Your task to perform on an android device: Open ESPN.com Image 0: 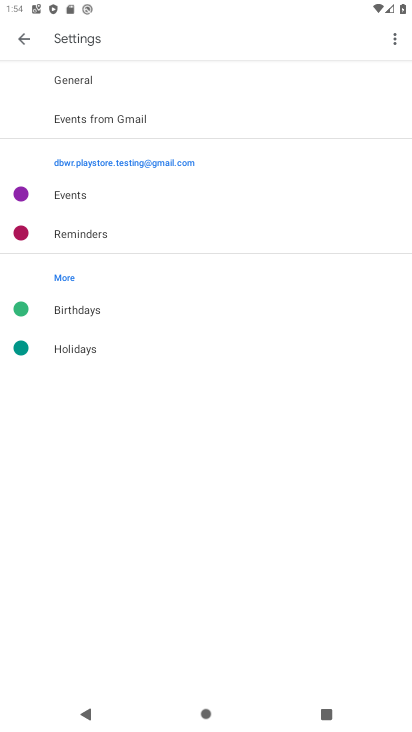
Step 0: press back button
Your task to perform on an android device: Open ESPN.com Image 1: 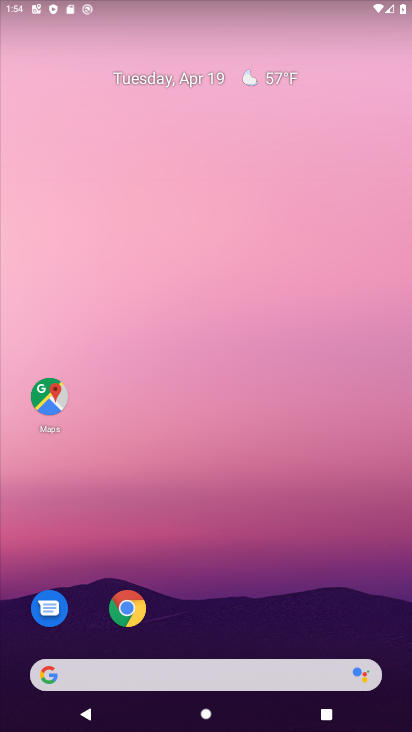
Step 1: drag from (245, 623) to (303, 236)
Your task to perform on an android device: Open ESPN.com Image 2: 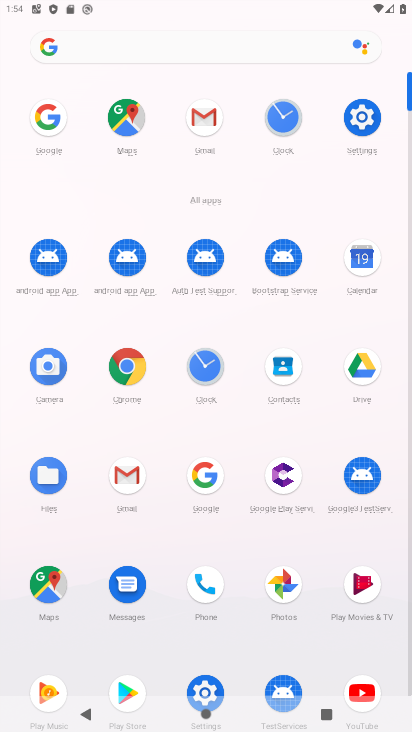
Step 2: click (206, 476)
Your task to perform on an android device: Open ESPN.com Image 3: 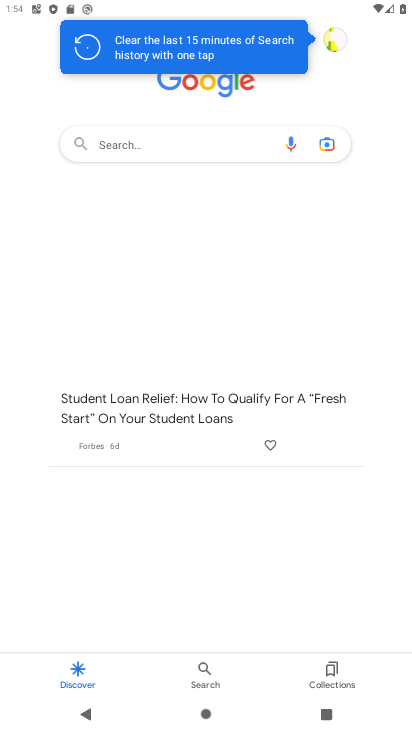
Step 3: click (122, 146)
Your task to perform on an android device: Open ESPN.com Image 4: 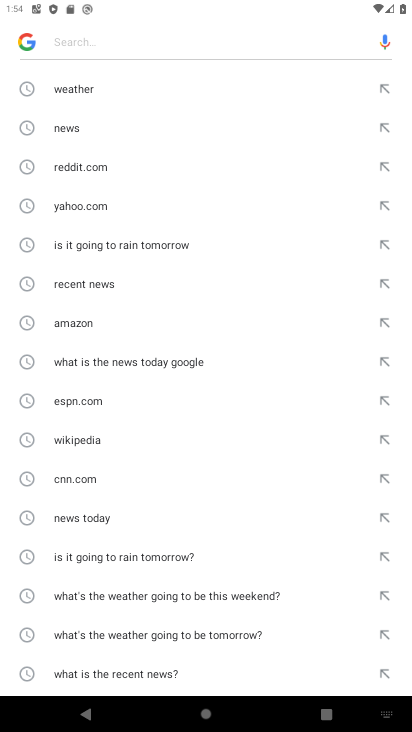
Step 4: type "ESPN.com"
Your task to perform on an android device: Open ESPN.com Image 5: 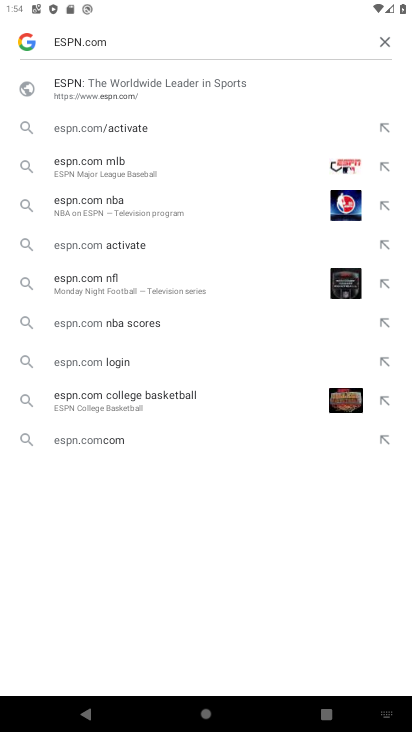
Step 5: click (88, 85)
Your task to perform on an android device: Open ESPN.com Image 6: 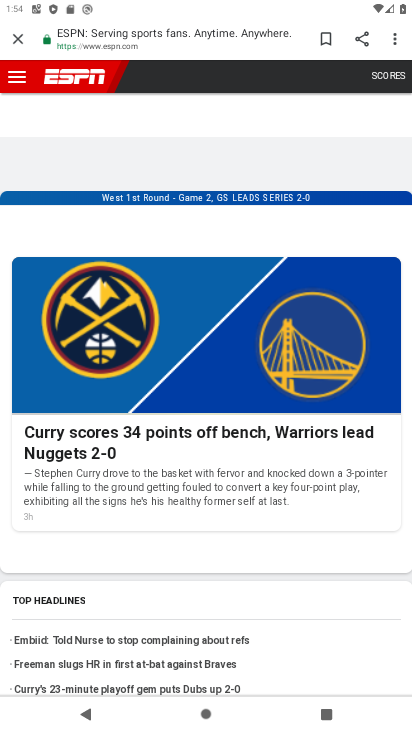
Step 6: task complete